Your task to perform on an android device: toggle notification dots Image 0: 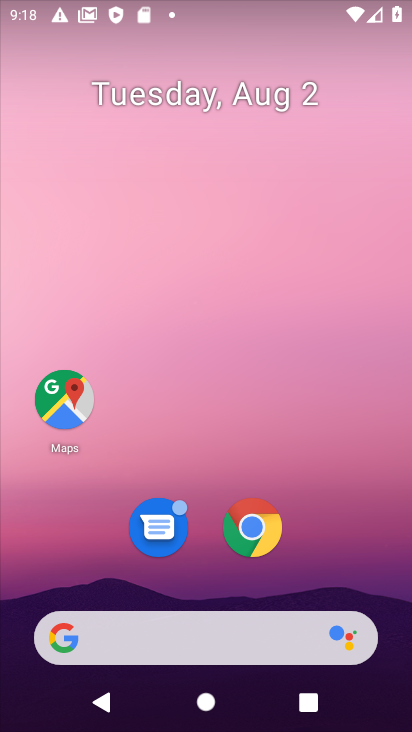
Step 0: drag from (217, 614) to (155, 121)
Your task to perform on an android device: toggle notification dots Image 1: 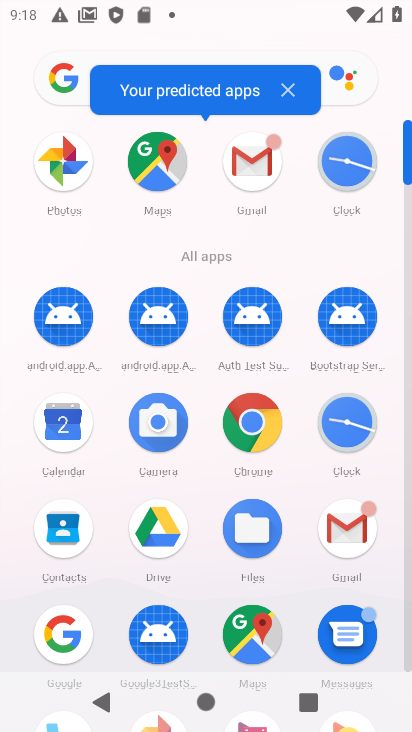
Step 1: drag from (200, 609) to (230, 283)
Your task to perform on an android device: toggle notification dots Image 2: 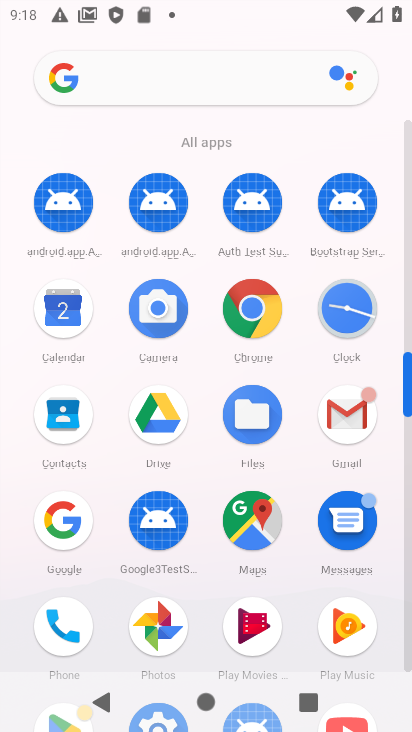
Step 2: drag from (206, 643) to (206, 329)
Your task to perform on an android device: toggle notification dots Image 3: 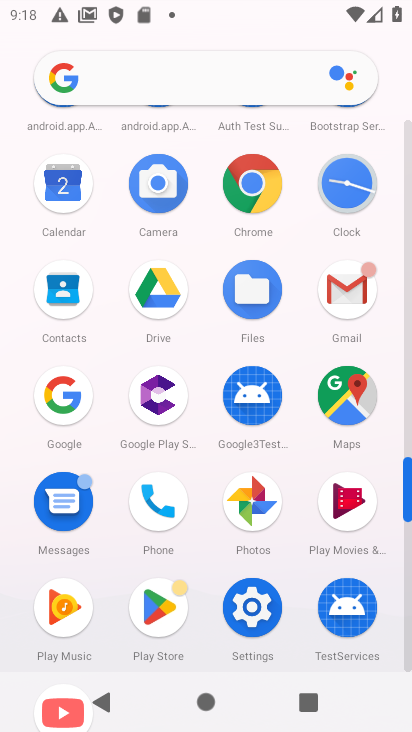
Step 3: click (248, 615)
Your task to perform on an android device: toggle notification dots Image 4: 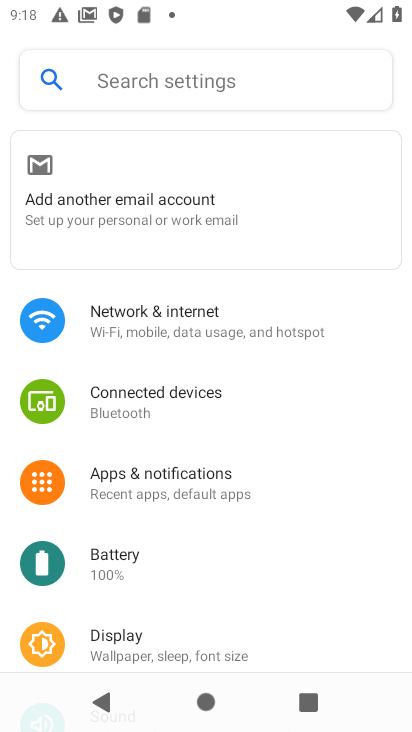
Step 4: click (149, 483)
Your task to perform on an android device: toggle notification dots Image 5: 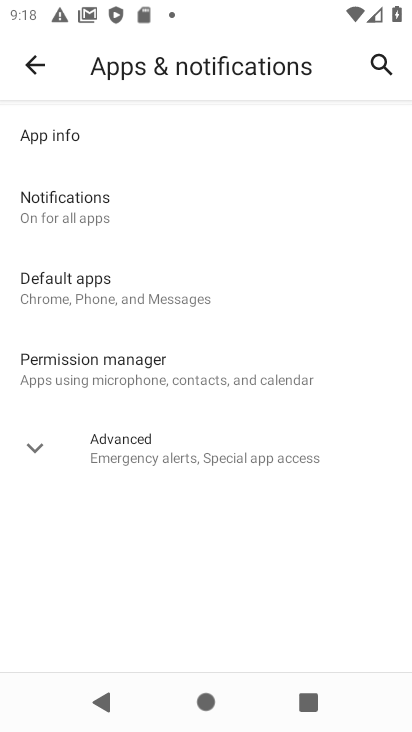
Step 5: click (57, 210)
Your task to perform on an android device: toggle notification dots Image 6: 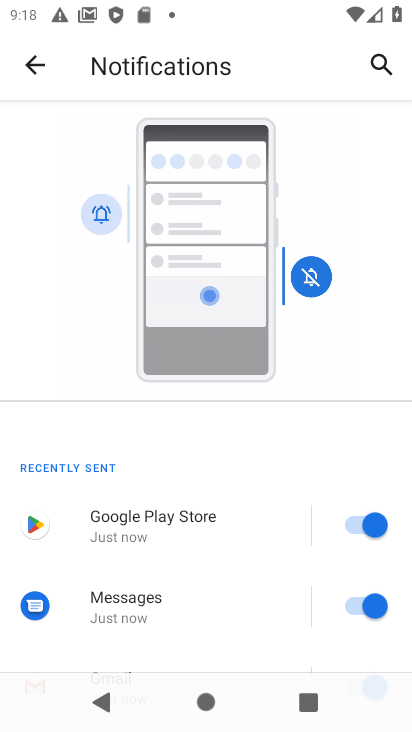
Step 6: drag from (120, 608) to (120, 266)
Your task to perform on an android device: toggle notification dots Image 7: 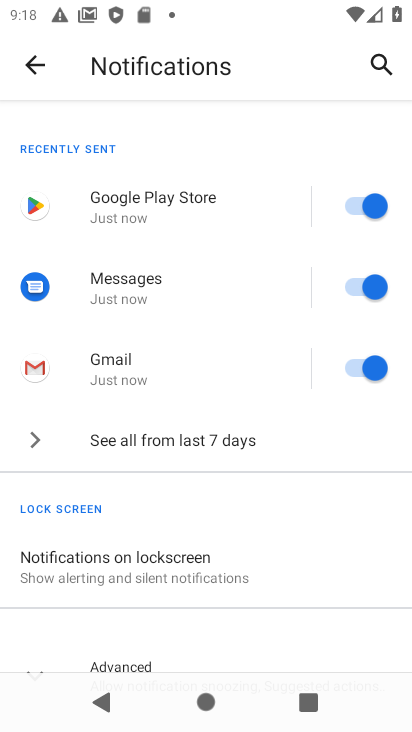
Step 7: drag from (125, 633) to (135, 314)
Your task to perform on an android device: toggle notification dots Image 8: 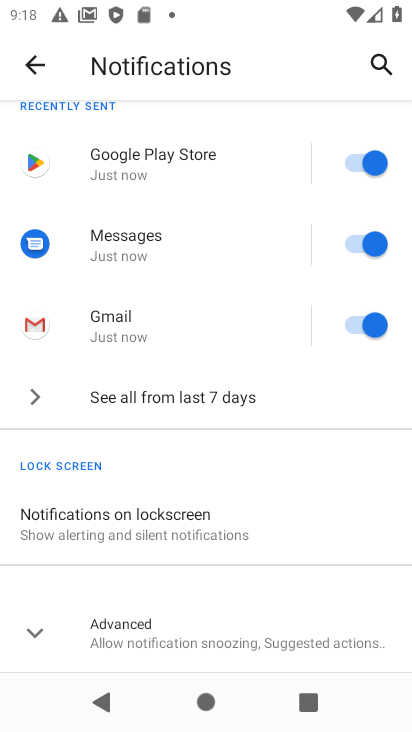
Step 8: click (139, 632)
Your task to perform on an android device: toggle notification dots Image 9: 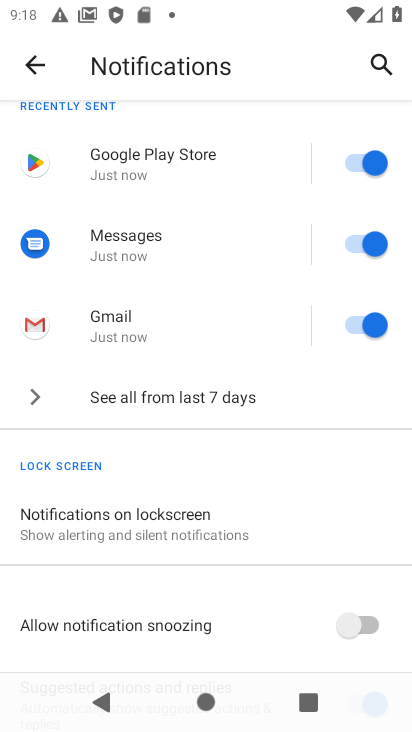
Step 9: drag from (184, 617) to (183, 257)
Your task to perform on an android device: toggle notification dots Image 10: 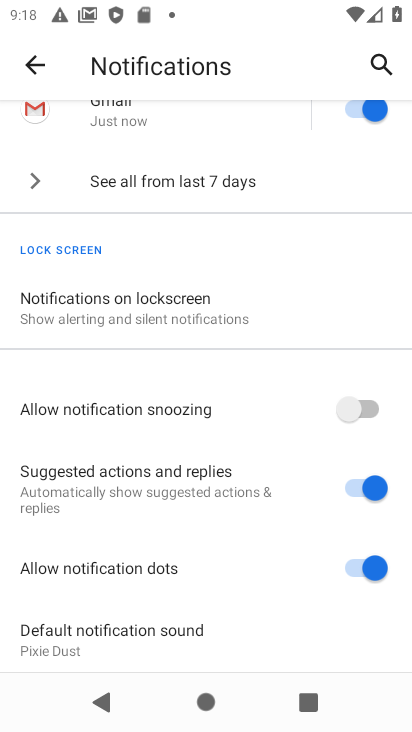
Step 10: click (361, 570)
Your task to perform on an android device: toggle notification dots Image 11: 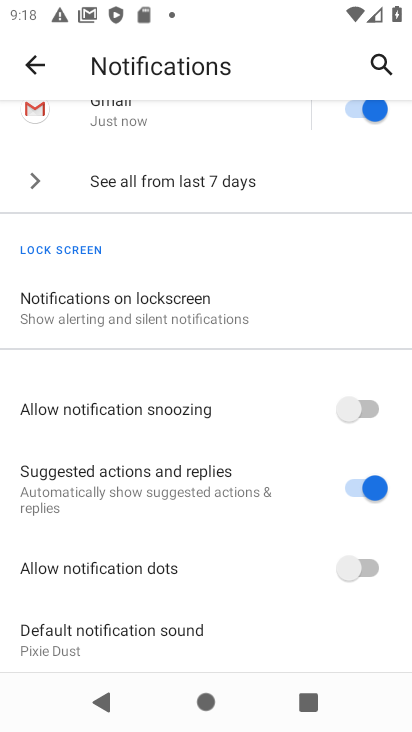
Step 11: task complete